Your task to perform on an android device: Open the web browser Image 0: 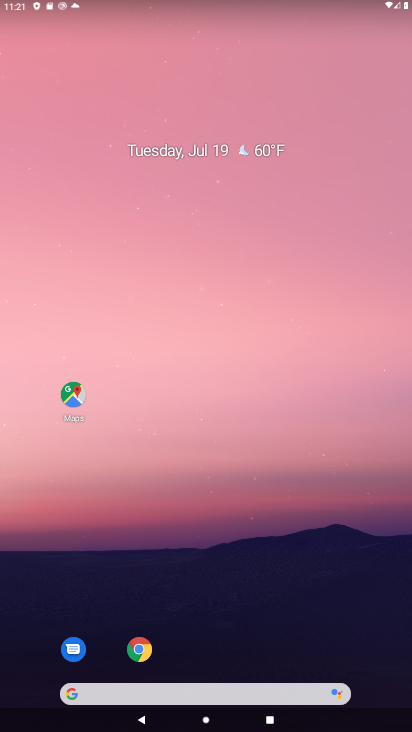
Step 0: click (136, 655)
Your task to perform on an android device: Open the web browser Image 1: 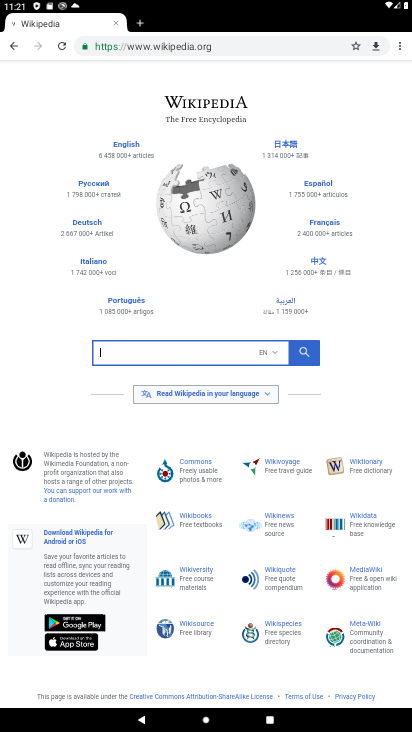
Step 1: task complete